Your task to perform on an android device: refresh tabs in the chrome app Image 0: 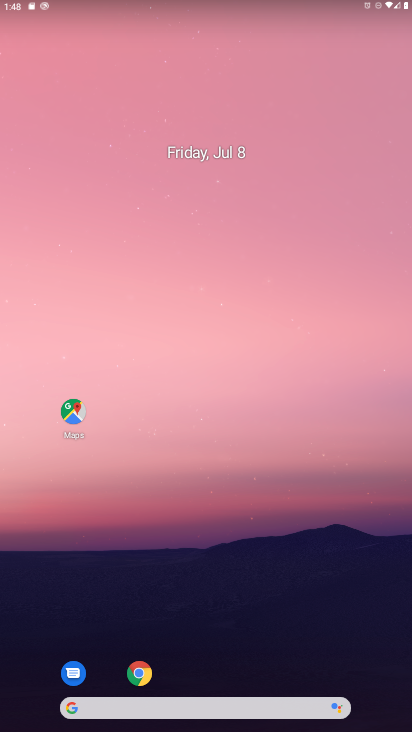
Step 0: click (147, 673)
Your task to perform on an android device: refresh tabs in the chrome app Image 1: 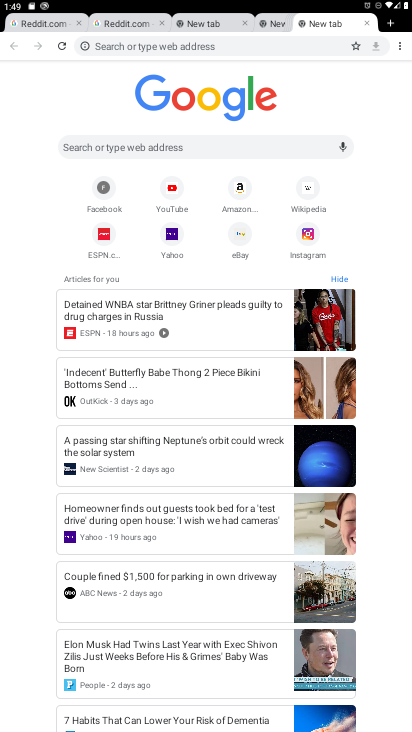
Step 1: click (397, 48)
Your task to perform on an android device: refresh tabs in the chrome app Image 2: 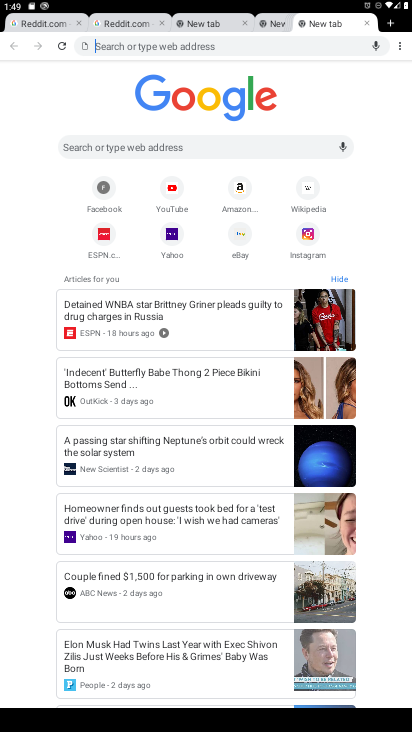
Step 2: click (399, 45)
Your task to perform on an android device: refresh tabs in the chrome app Image 3: 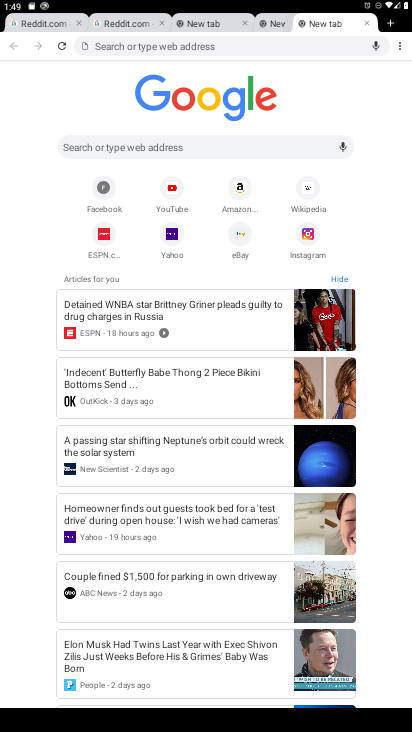
Step 3: click (402, 47)
Your task to perform on an android device: refresh tabs in the chrome app Image 4: 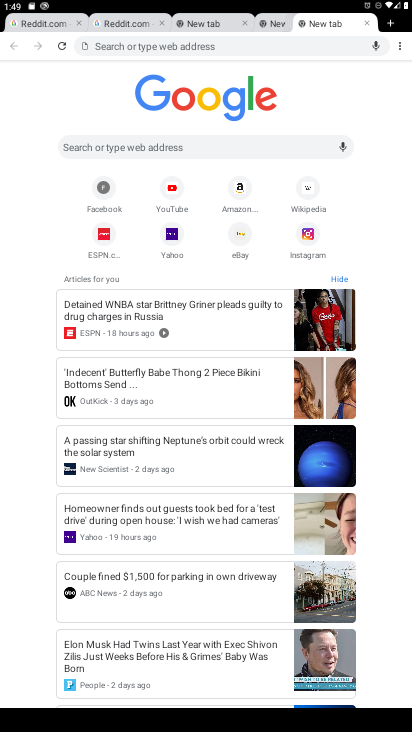
Step 4: click (402, 46)
Your task to perform on an android device: refresh tabs in the chrome app Image 5: 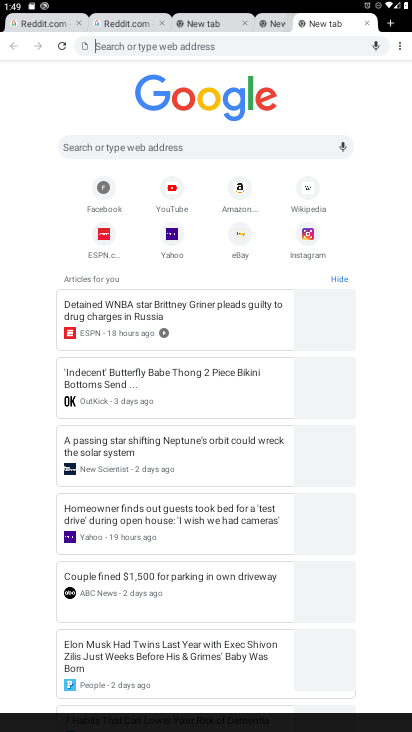
Step 5: click (402, 46)
Your task to perform on an android device: refresh tabs in the chrome app Image 6: 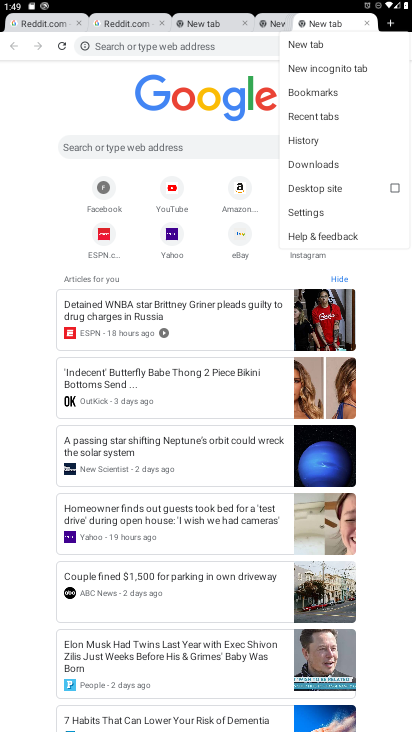
Step 6: click (402, 46)
Your task to perform on an android device: refresh tabs in the chrome app Image 7: 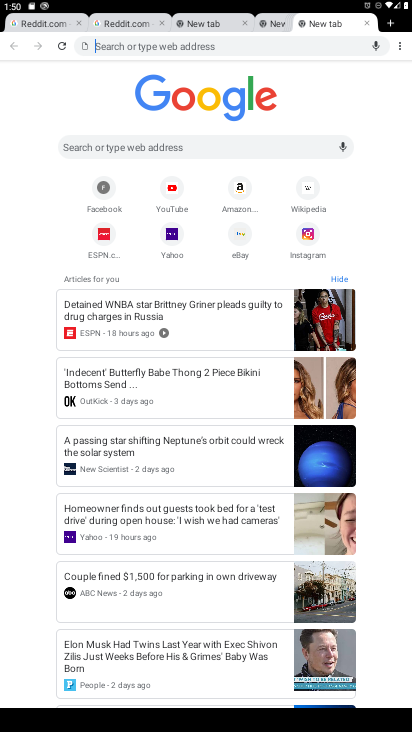
Step 7: task complete